Your task to perform on an android device: find photos in the google photos app Image 0: 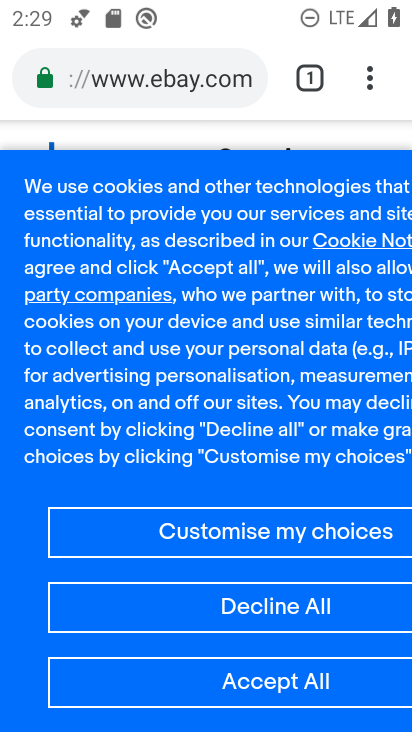
Step 0: press home button
Your task to perform on an android device: find photos in the google photos app Image 1: 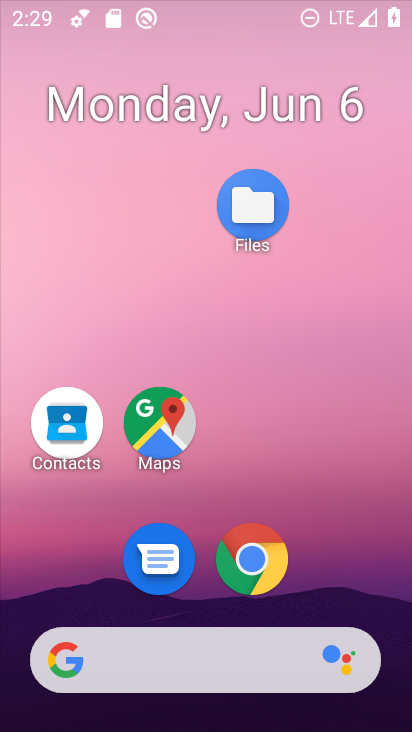
Step 1: drag from (210, 564) to (291, 142)
Your task to perform on an android device: find photos in the google photos app Image 2: 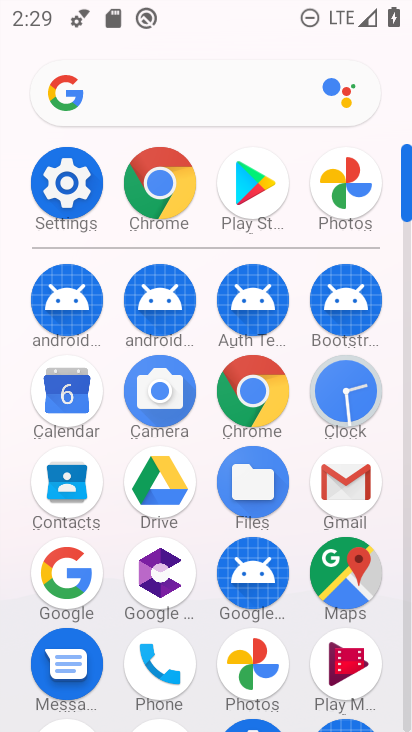
Step 2: click (254, 648)
Your task to perform on an android device: find photos in the google photos app Image 3: 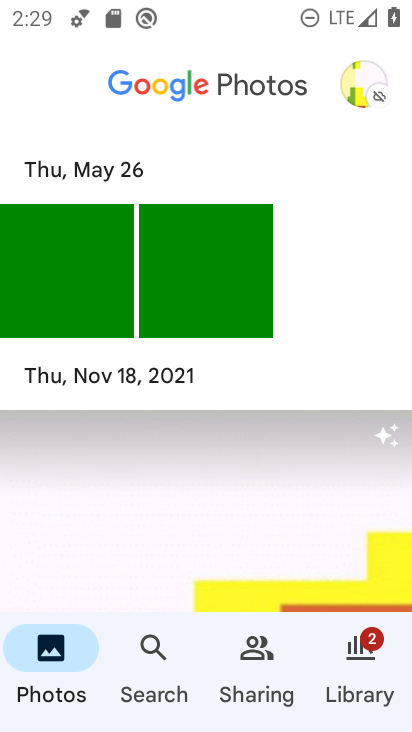
Step 3: task complete